Your task to perform on an android device: install app "Contacts" Image 0: 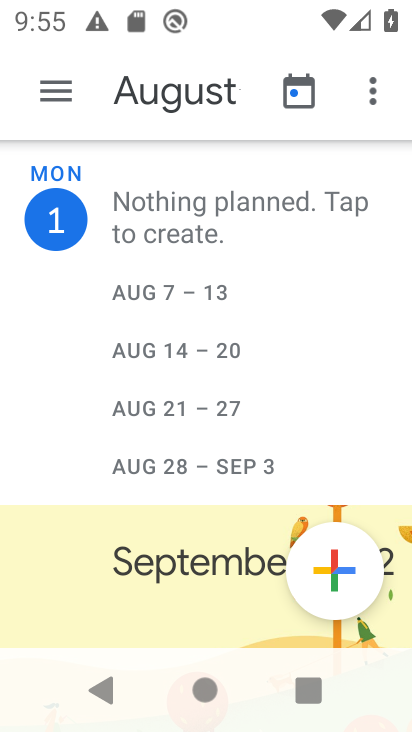
Step 0: press home button
Your task to perform on an android device: install app "Contacts" Image 1: 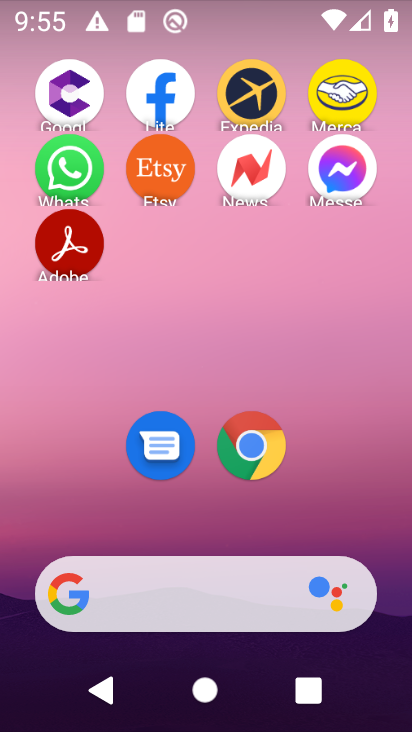
Step 1: drag from (393, 610) to (303, 143)
Your task to perform on an android device: install app "Contacts" Image 2: 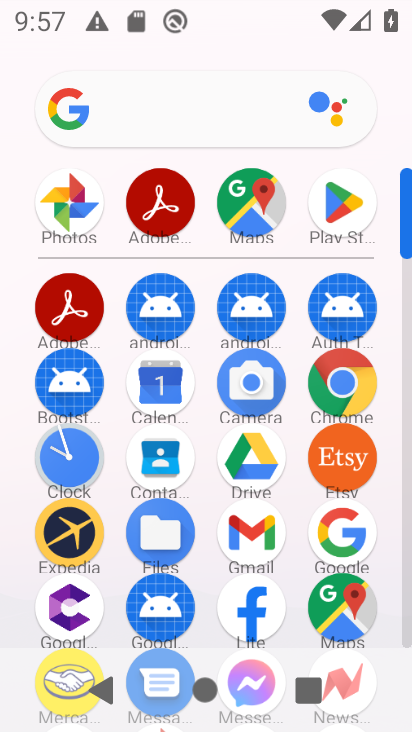
Step 2: click (324, 220)
Your task to perform on an android device: install app "Contacts" Image 3: 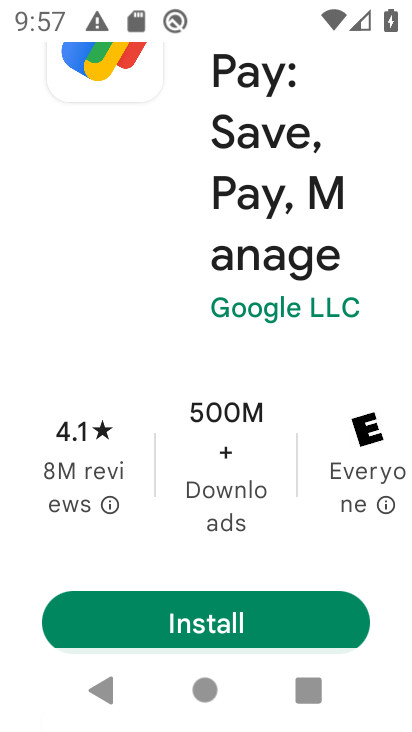
Step 3: press back button
Your task to perform on an android device: install app "Contacts" Image 4: 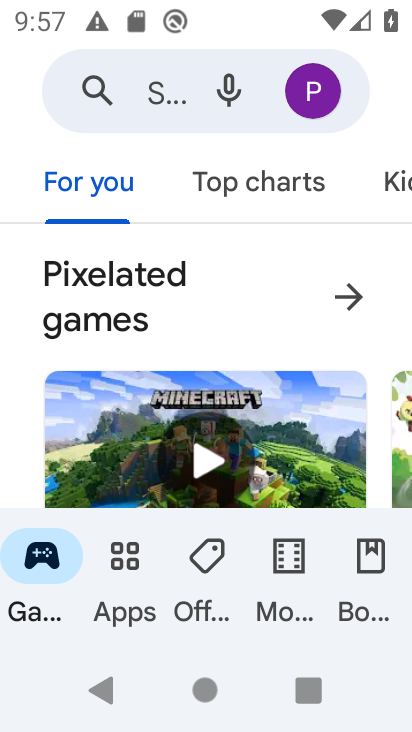
Step 4: click (140, 116)
Your task to perform on an android device: install app "Contacts" Image 5: 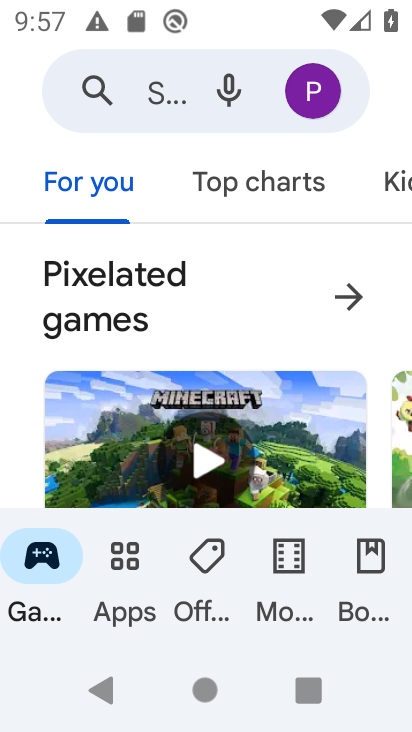
Step 5: click (149, 91)
Your task to perform on an android device: install app "Contacts" Image 6: 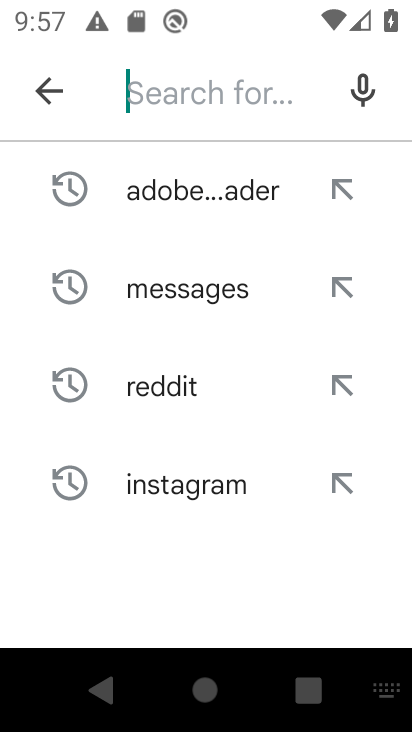
Step 6: type "Contacts"
Your task to perform on an android device: install app "Contacts" Image 7: 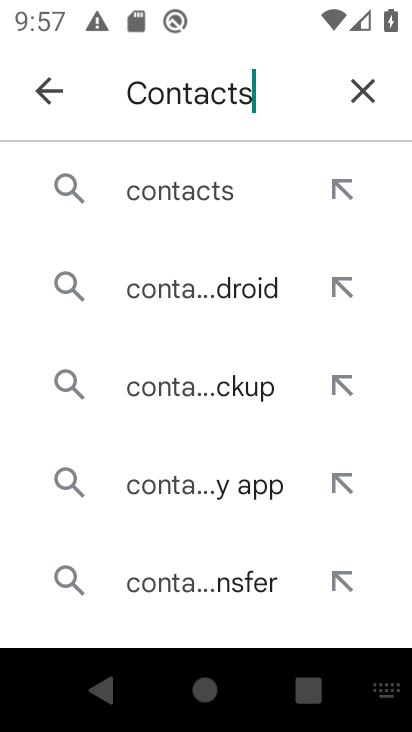
Step 7: click (179, 198)
Your task to perform on an android device: install app "Contacts" Image 8: 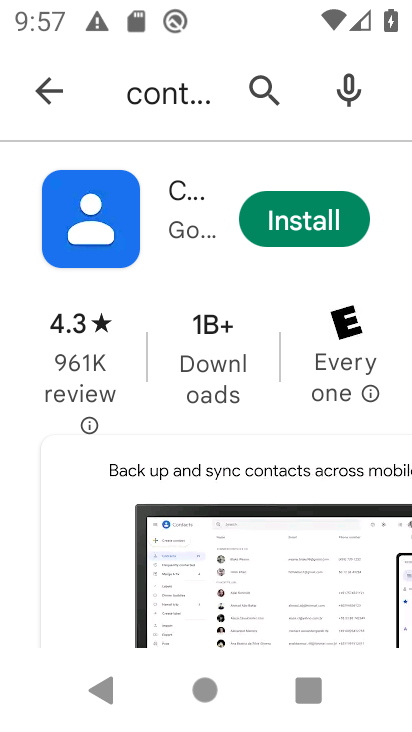
Step 8: click (311, 238)
Your task to perform on an android device: install app "Contacts" Image 9: 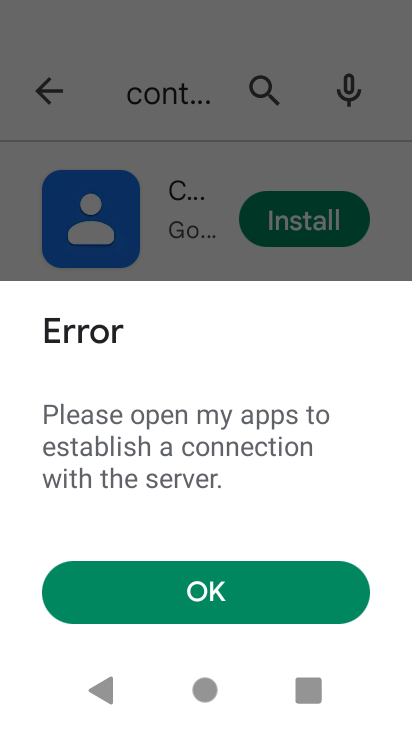
Step 9: task complete